Your task to perform on an android device: Go to settings Image 0: 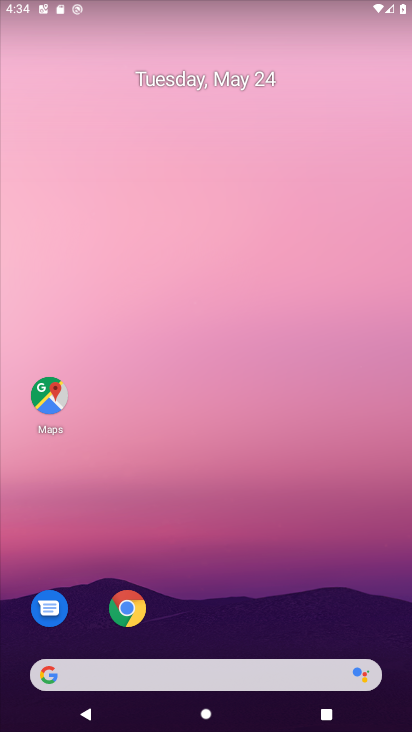
Step 0: drag from (217, 619) to (174, 304)
Your task to perform on an android device: Go to settings Image 1: 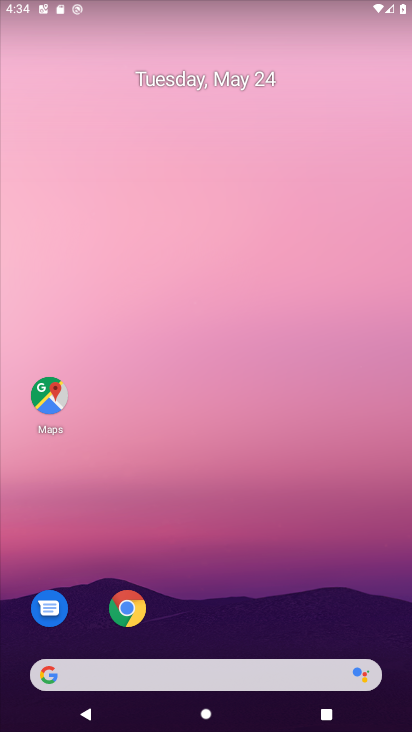
Step 1: drag from (201, 650) to (190, 234)
Your task to perform on an android device: Go to settings Image 2: 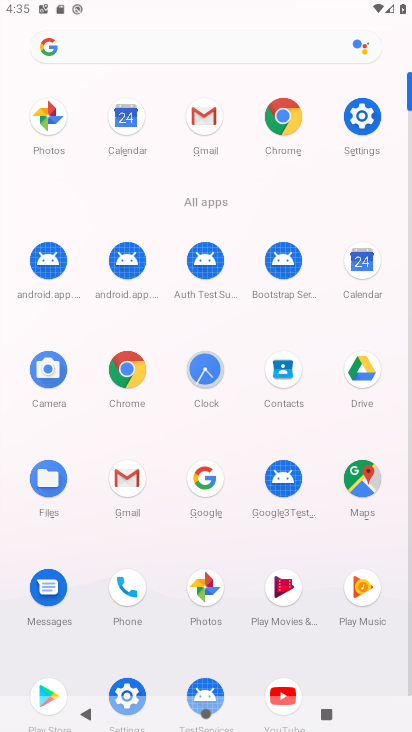
Step 2: click (353, 134)
Your task to perform on an android device: Go to settings Image 3: 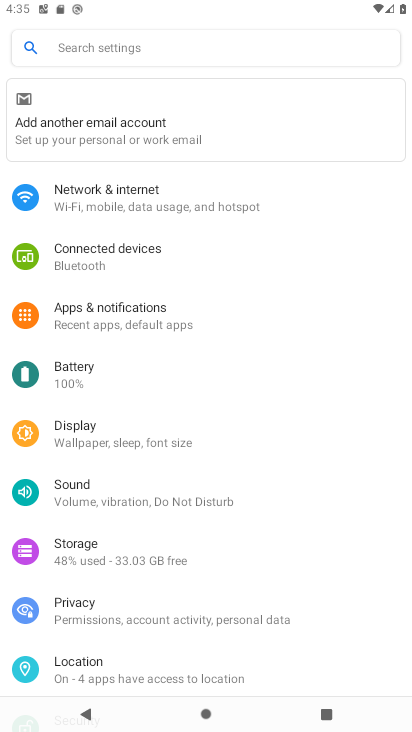
Step 3: task complete